Your task to perform on an android device: Go to internet settings Image 0: 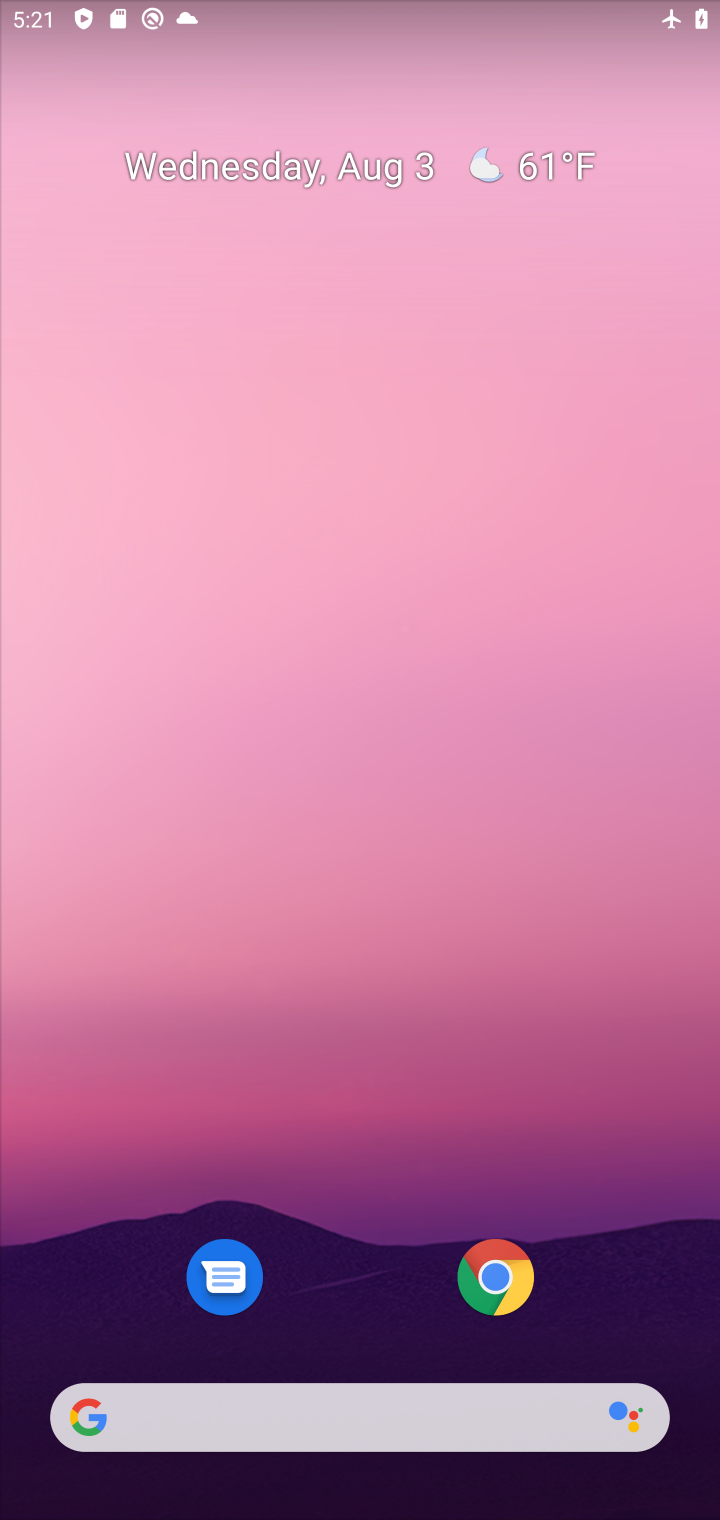
Step 0: drag from (372, 999) to (279, 25)
Your task to perform on an android device: Go to internet settings Image 1: 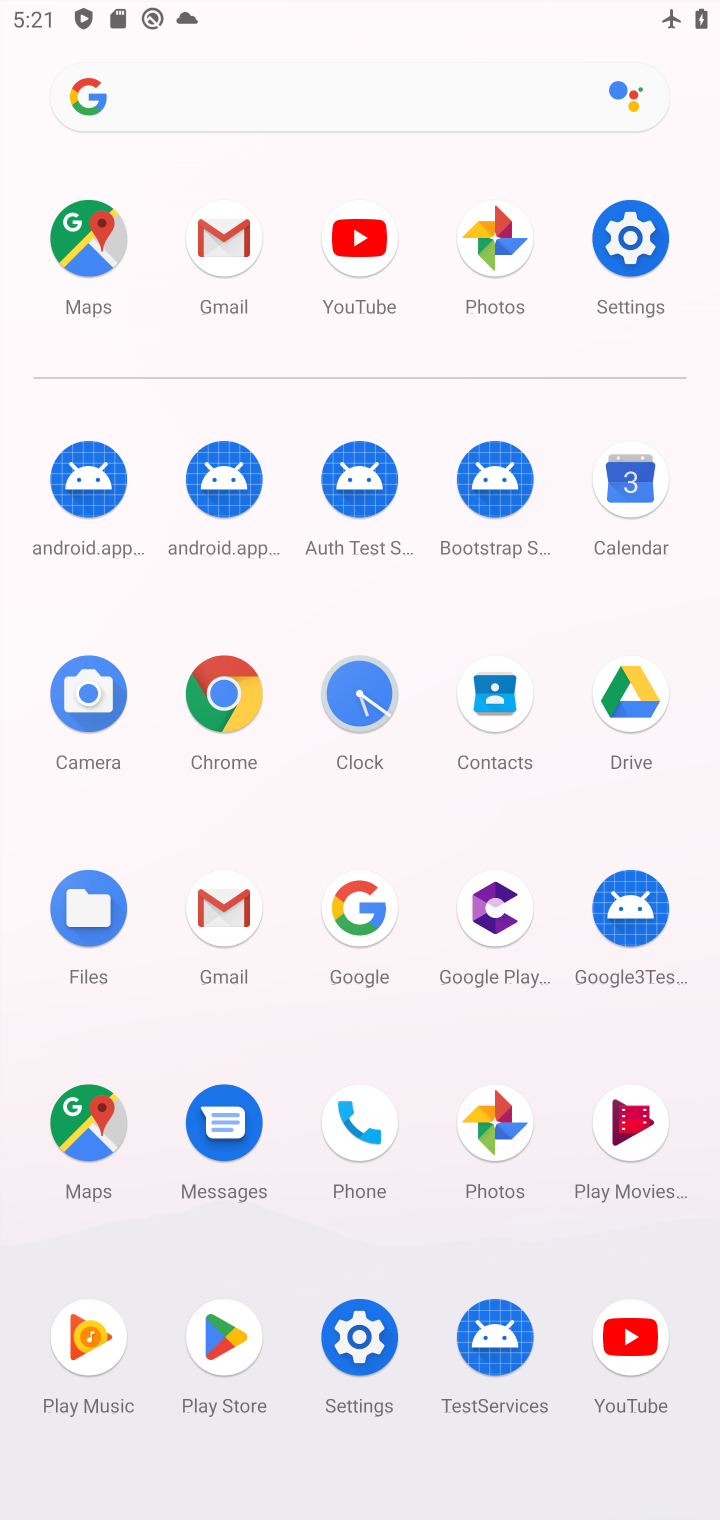
Step 1: click (622, 233)
Your task to perform on an android device: Go to internet settings Image 2: 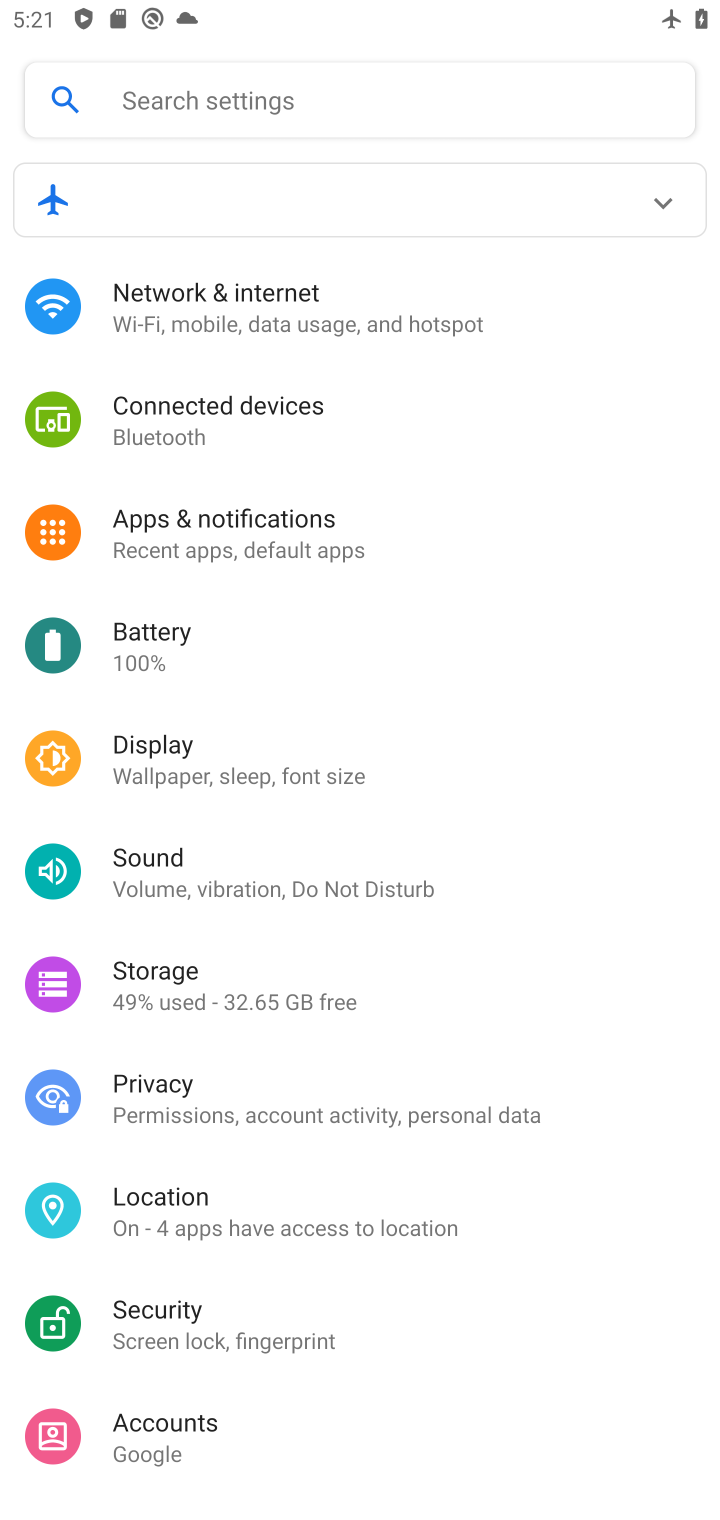
Step 2: click (299, 319)
Your task to perform on an android device: Go to internet settings Image 3: 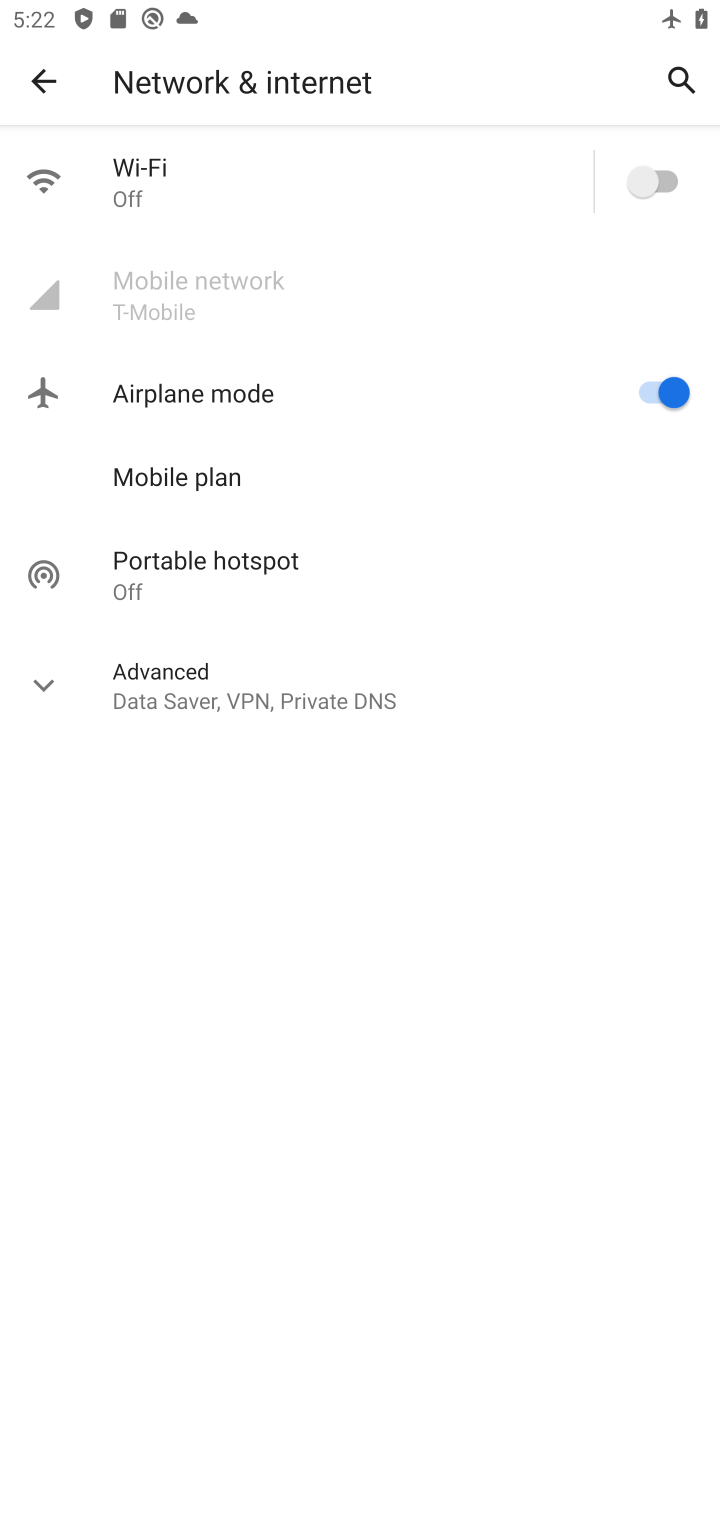
Step 3: task complete